Your task to perform on an android device: Set the phone to "Do not disturb". Image 0: 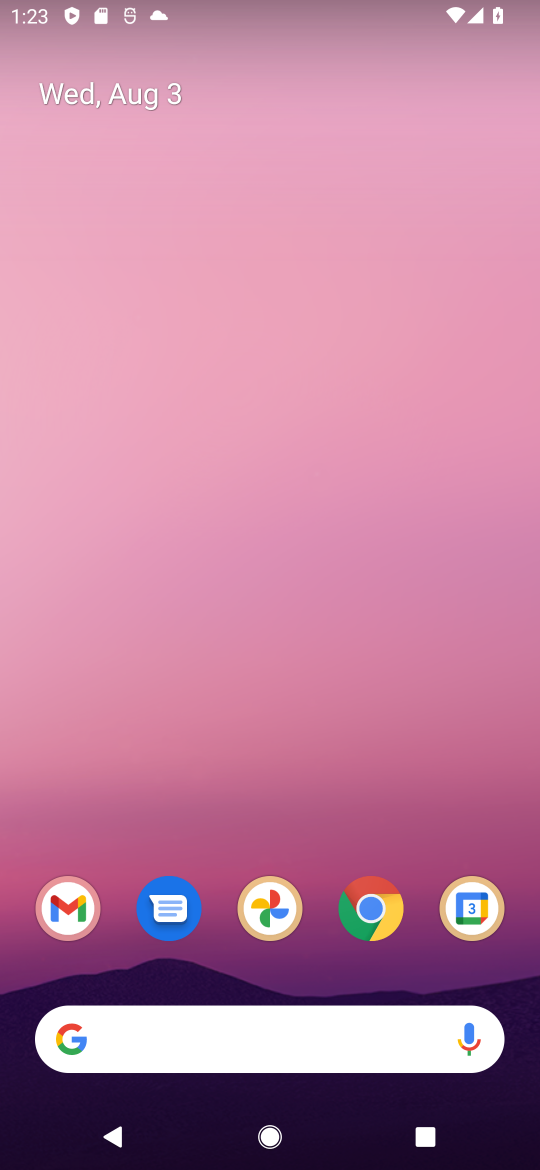
Step 0: press home button
Your task to perform on an android device: Set the phone to "Do not disturb". Image 1: 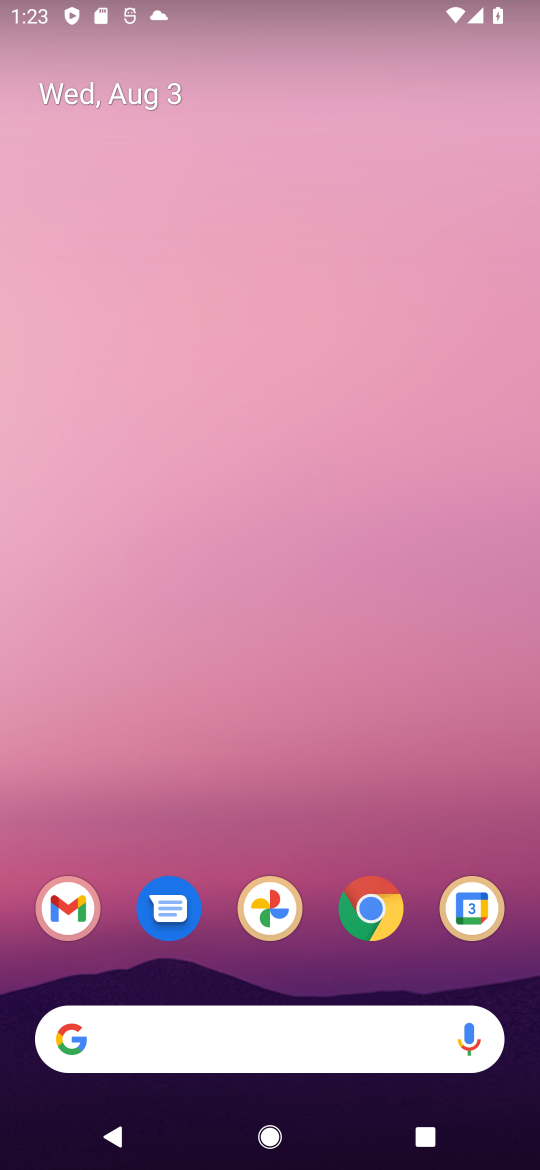
Step 1: drag from (265, 830) to (361, 136)
Your task to perform on an android device: Set the phone to "Do not disturb". Image 2: 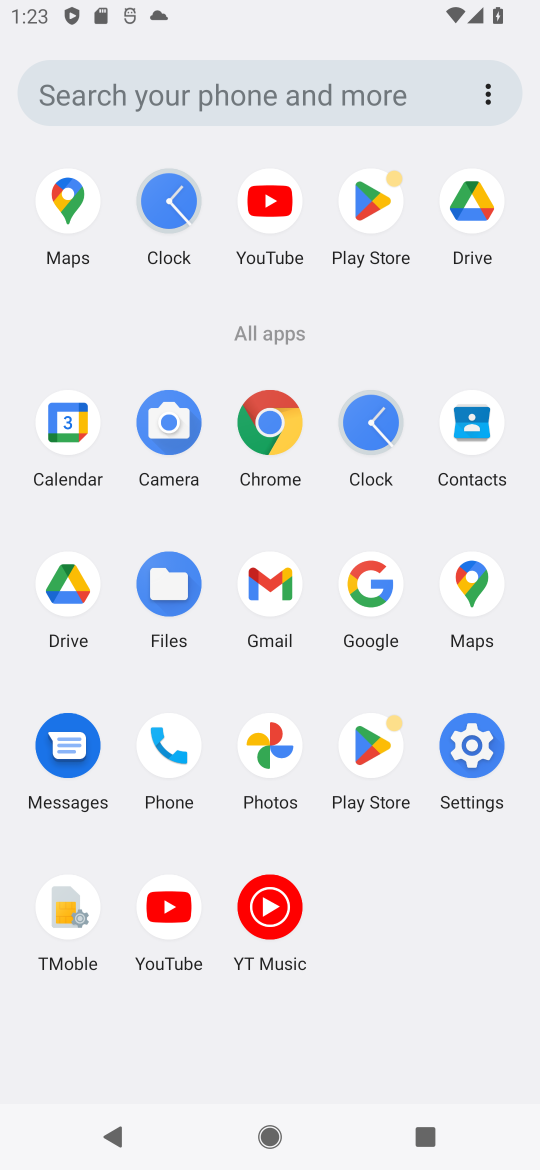
Step 2: click (474, 781)
Your task to perform on an android device: Set the phone to "Do not disturb". Image 3: 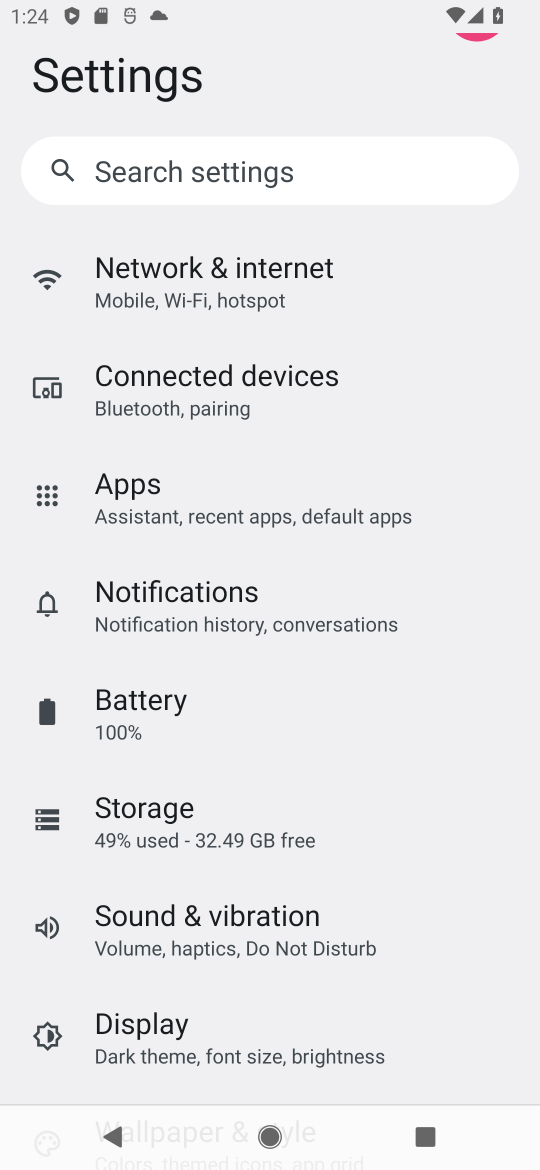
Step 3: click (184, 910)
Your task to perform on an android device: Set the phone to "Do not disturb". Image 4: 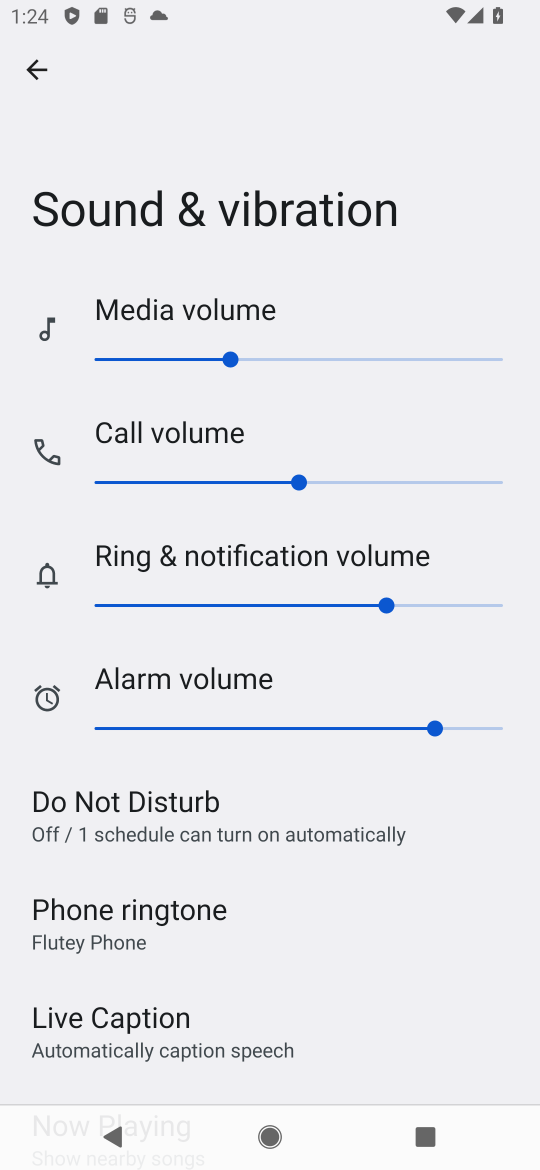
Step 4: click (226, 835)
Your task to perform on an android device: Set the phone to "Do not disturb". Image 5: 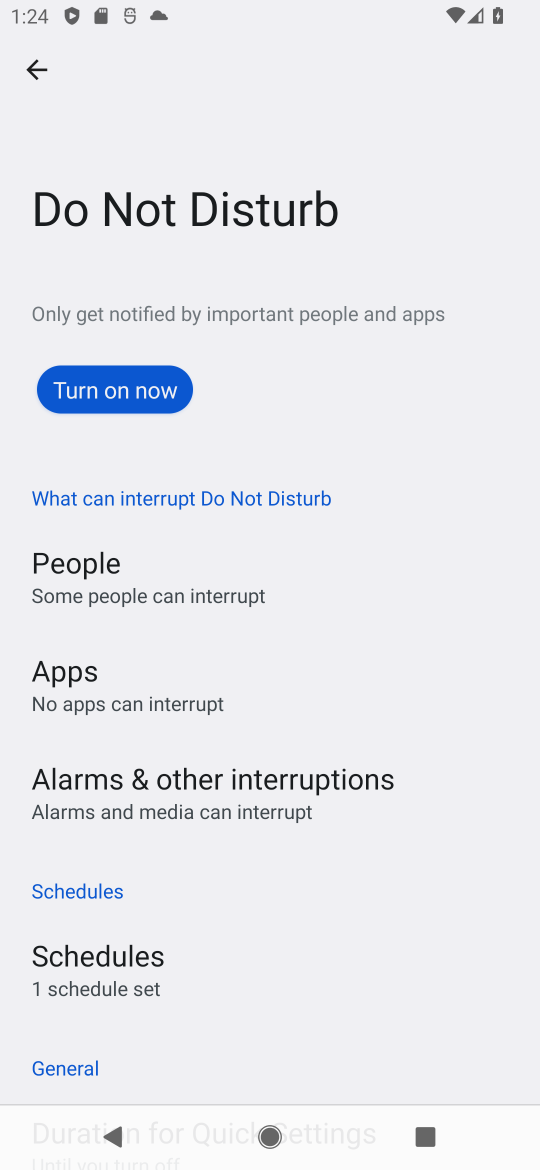
Step 5: click (101, 389)
Your task to perform on an android device: Set the phone to "Do not disturb". Image 6: 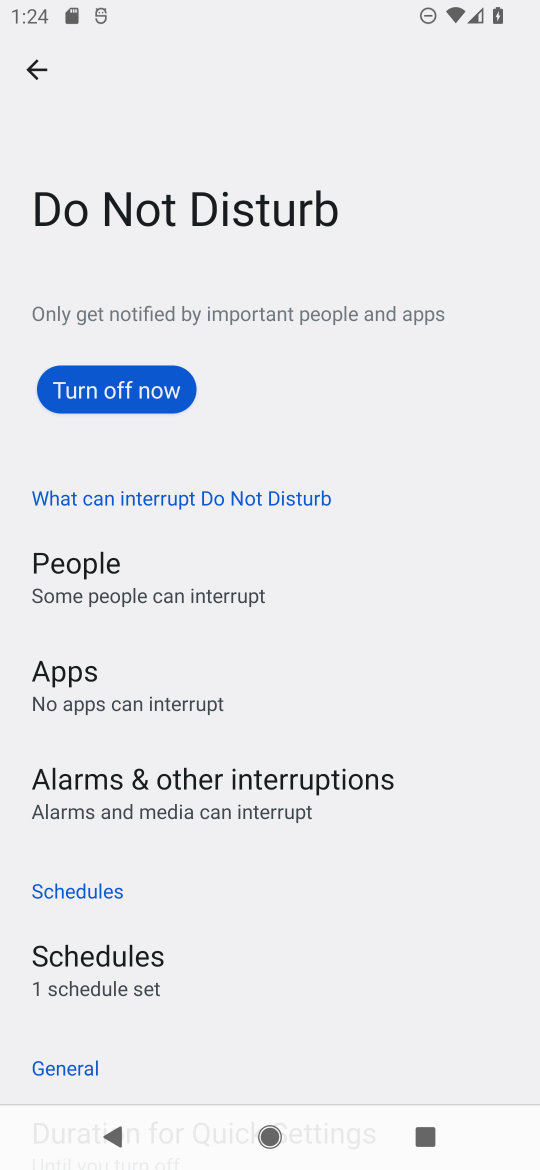
Step 6: task complete